Your task to perform on an android device: turn on wifi Image 0: 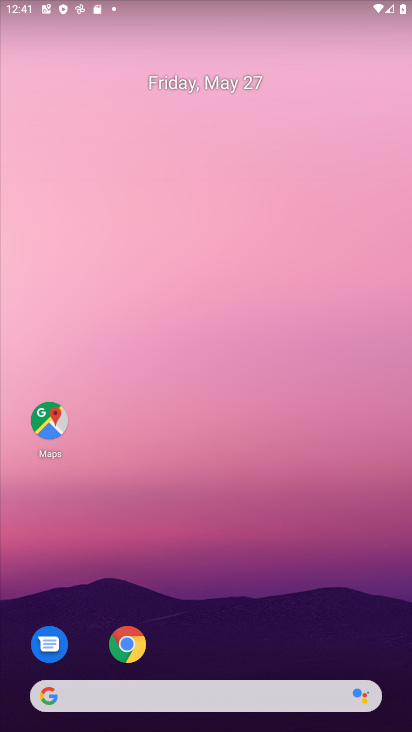
Step 0: drag from (330, 355) to (252, 42)
Your task to perform on an android device: turn on wifi Image 1: 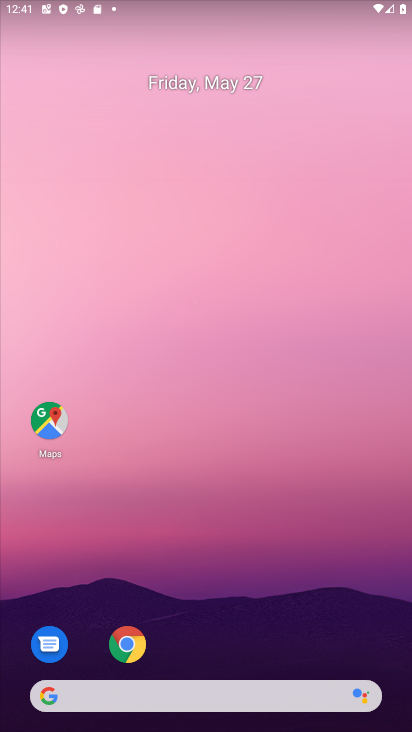
Step 1: task complete